Your task to perform on an android device: remove spam from my inbox in the gmail app Image 0: 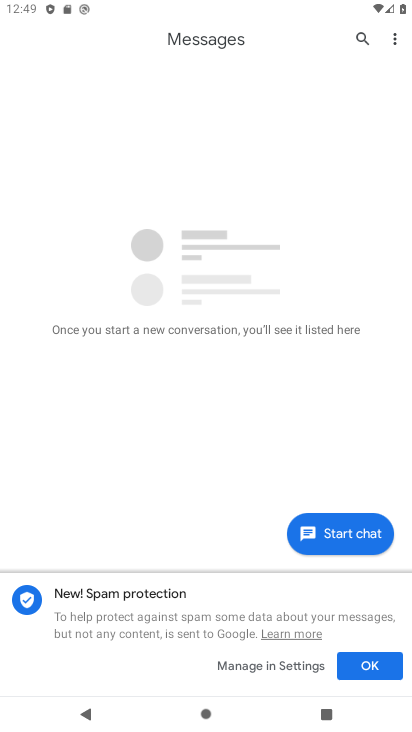
Step 0: press home button
Your task to perform on an android device: remove spam from my inbox in the gmail app Image 1: 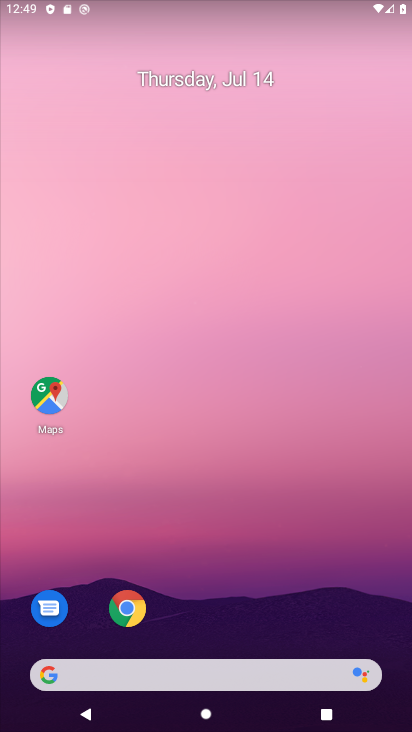
Step 1: drag from (347, 617) to (319, 137)
Your task to perform on an android device: remove spam from my inbox in the gmail app Image 2: 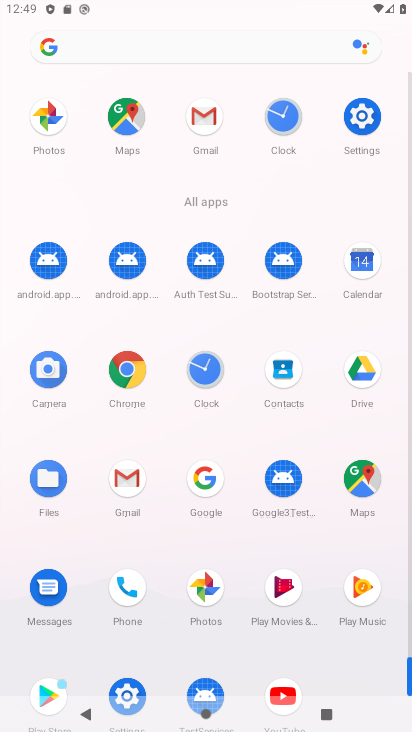
Step 2: click (124, 476)
Your task to perform on an android device: remove spam from my inbox in the gmail app Image 3: 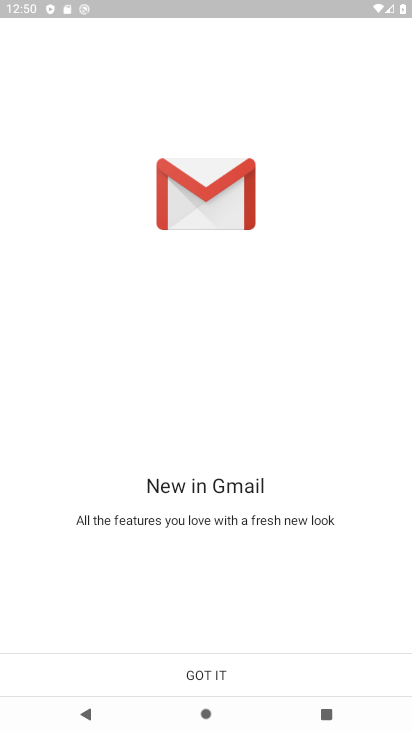
Step 3: click (222, 671)
Your task to perform on an android device: remove spam from my inbox in the gmail app Image 4: 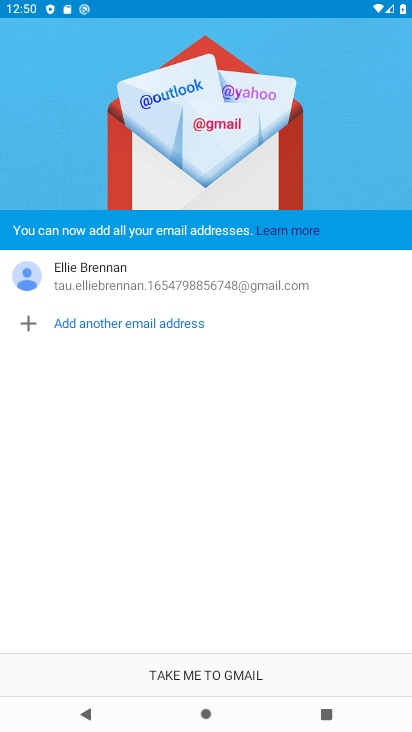
Step 4: click (204, 678)
Your task to perform on an android device: remove spam from my inbox in the gmail app Image 5: 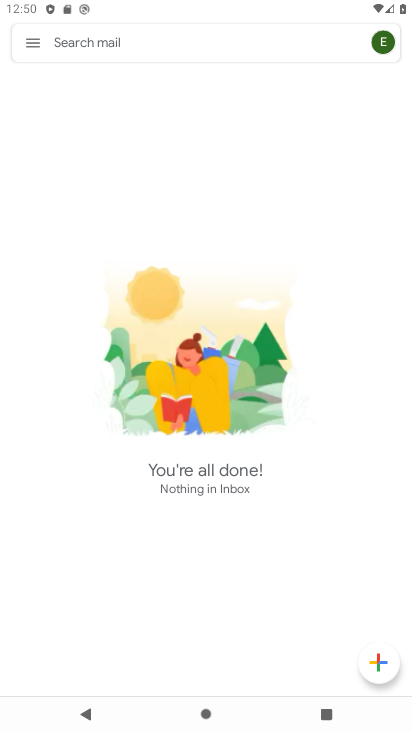
Step 5: click (30, 44)
Your task to perform on an android device: remove spam from my inbox in the gmail app Image 6: 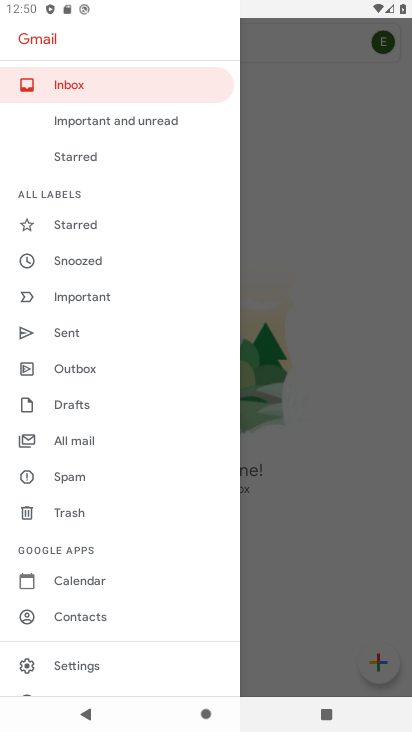
Step 6: click (71, 470)
Your task to perform on an android device: remove spam from my inbox in the gmail app Image 7: 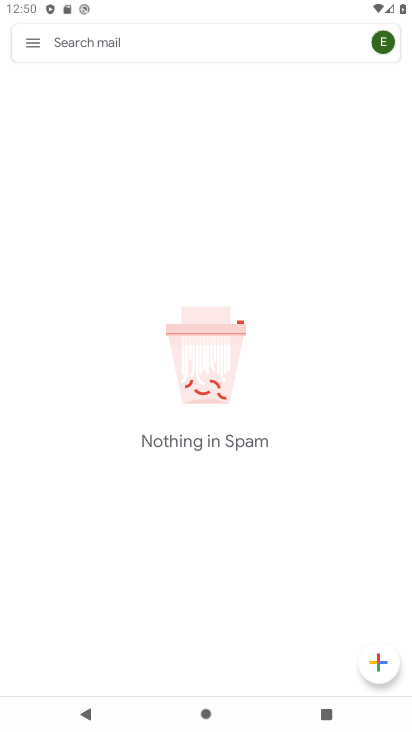
Step 7: task complete